Your task to perform on an android device: change the clock display to analog Image 0: 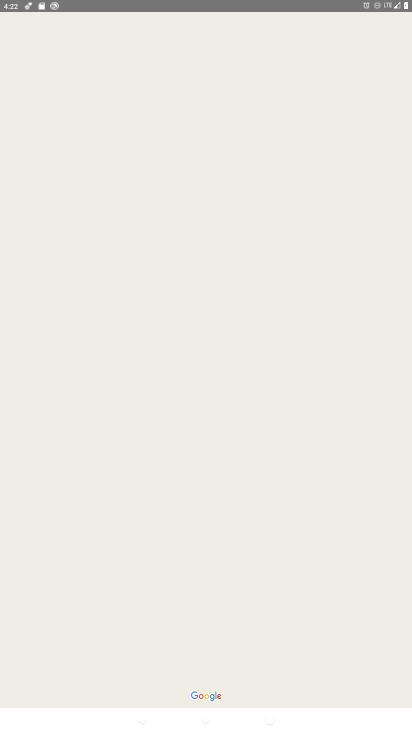
Step 0: press home button
Your task to perform on an android device: change the clock display to analog Image 1: 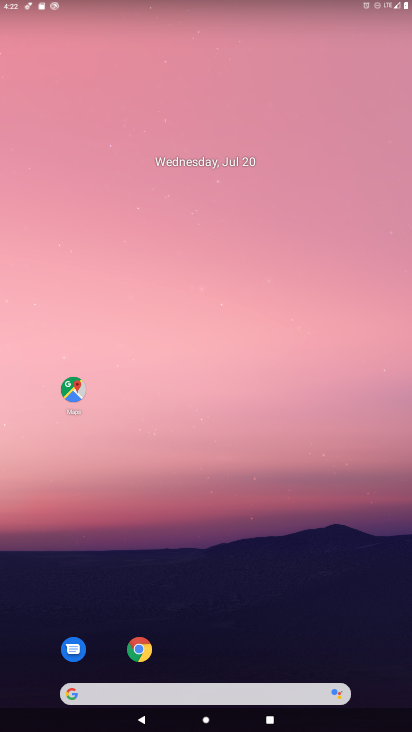
Step 1: drag from (198, 691) to (207, 295)
Your task to perform on an android device: change the clock display to analog Image 2: 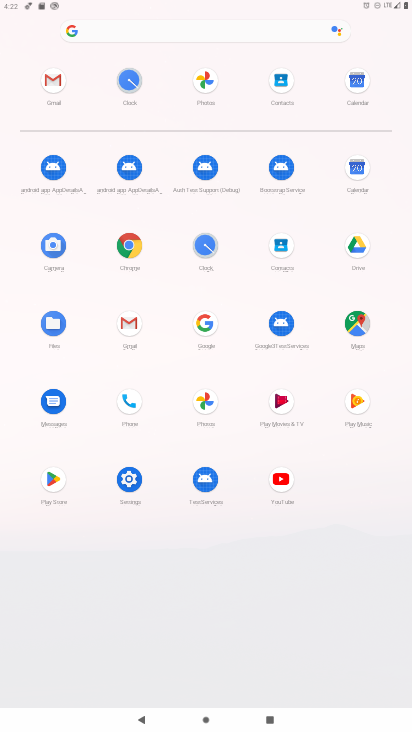
Step 2: click (129, 81)
Your task to perform on an android device: change the clock display to analog Image 3: 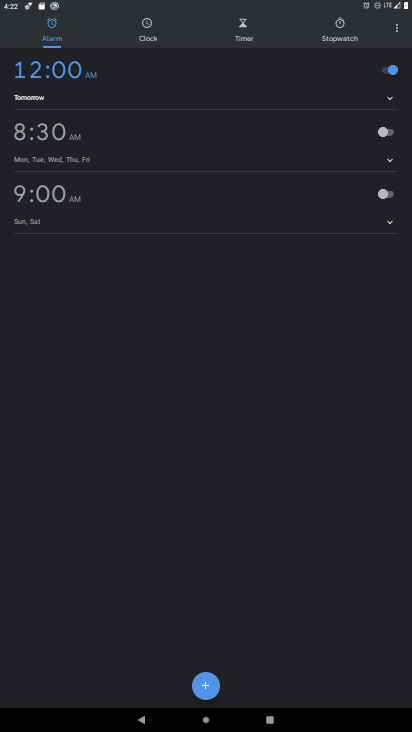
Step 3: click (398, 30)
Your task to perform on an android device: change the clock display to analog Image 4: 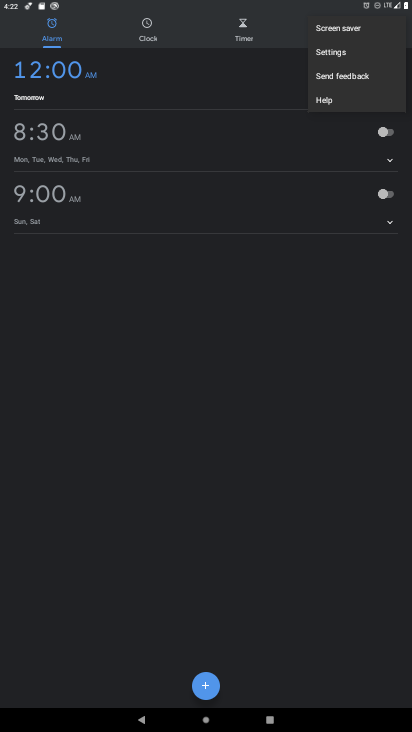
Step 4: click (337, 54)
Your task to perform on an android device: change the clock display to analog Image 5: 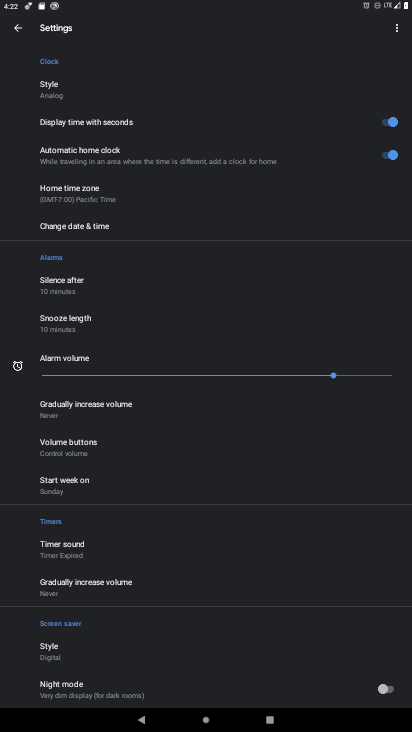
Step 5: click (61, 98)
Your task to perform on an android device: change the clock display to analog Image 6: 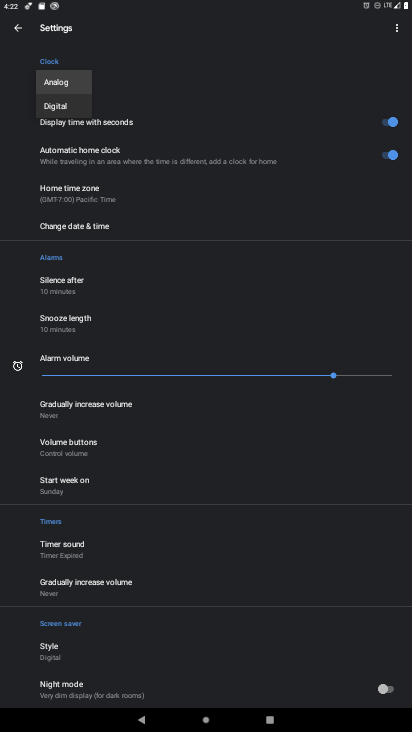
Step 6: click (64, 82)
Your task to perform on an android device: change the clock display to analog Image 7: 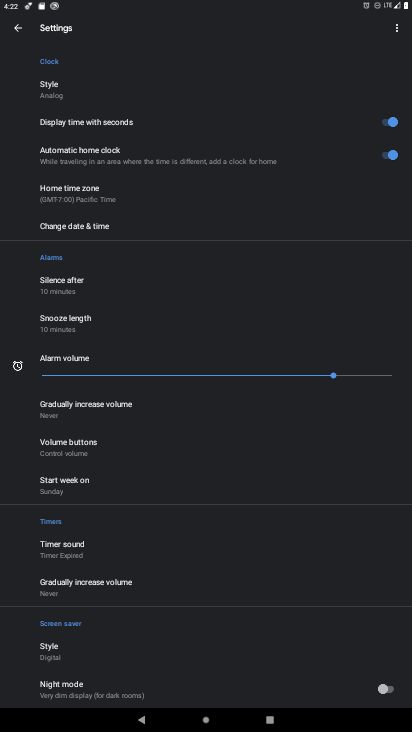
Step 7: task complete